Your task to perform on an android device: set an alarm Image 0: 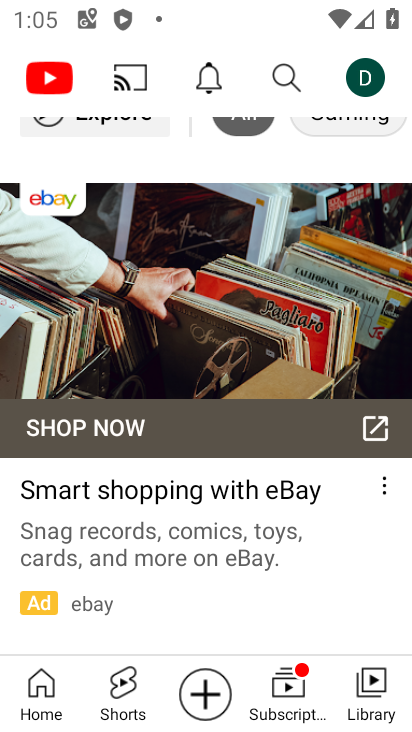
Step 0: press home button
Your task to perform on an android device: set an alarm Image 1: 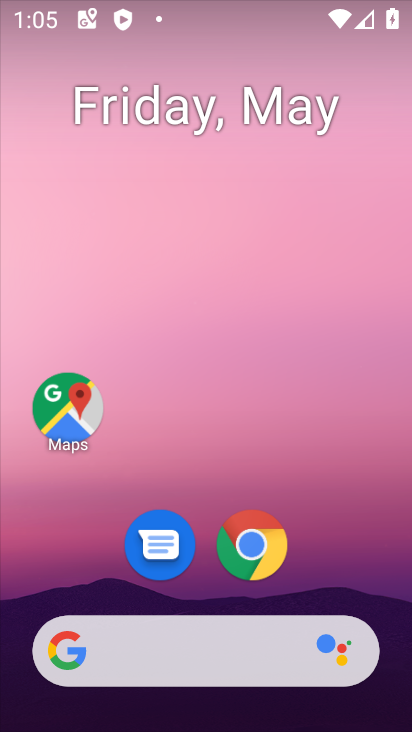
Step 1: drag from (318, 548) to (327, 34)
Your task to perform on an android device: set an alarm Image 2: 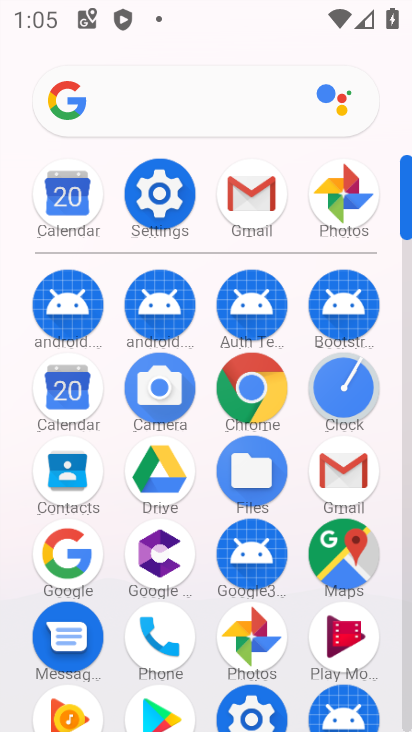
Step 2: click (340, 377)
Your task to perform on an android device: set an alarm Image 3: 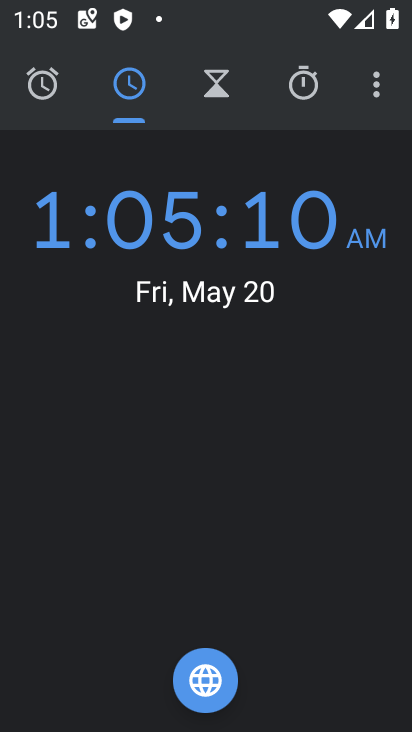
Step 3: click (50, 81)
Your task to perform on an android device: set an alarm Image 4: 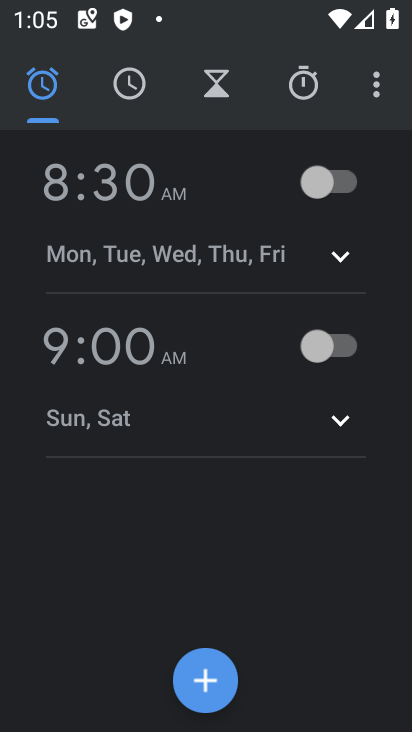
Step 4: click (340, 188)
Your task to perform on an android device: set an alarm Image 5: 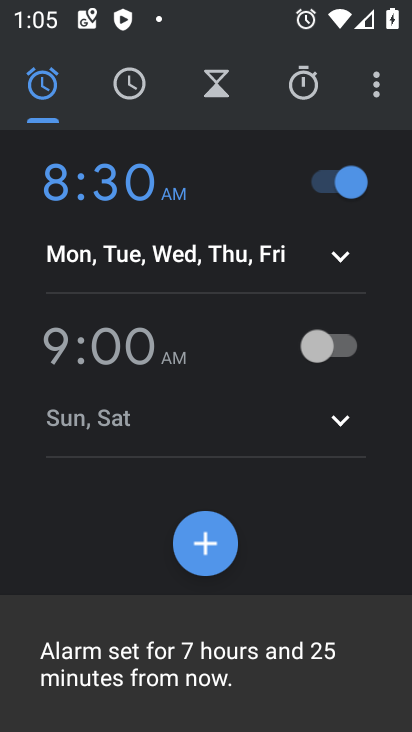
Step 5: task complete